Your task to perform on an android device: Play the last video I watched on Youtube Image 0: 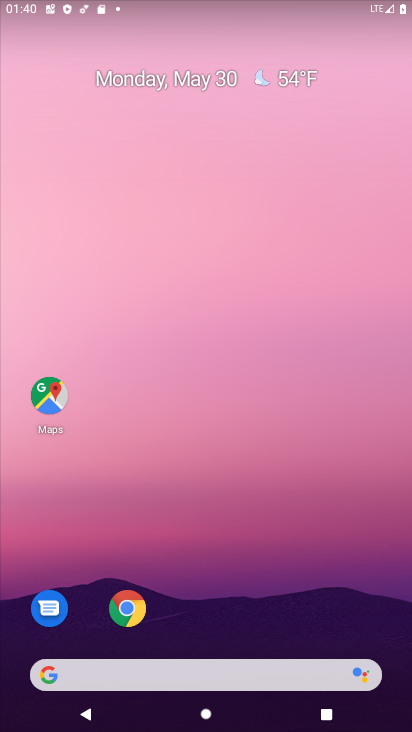
Step 0: drag from (226, 589) to (217, 256)
Your task to perform on an android device: Play the last video I watched on Youtube Image 1: 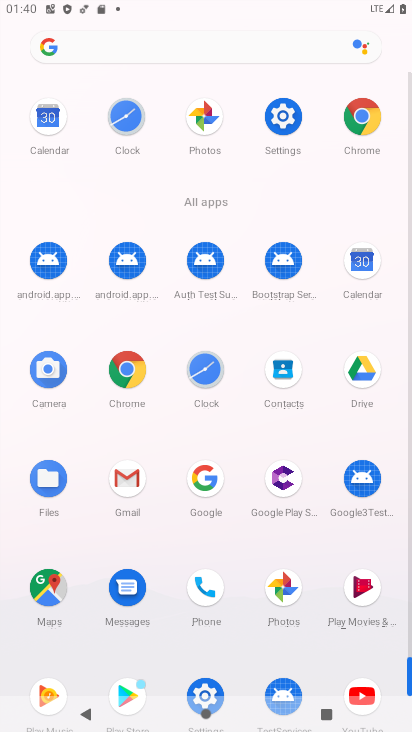
Step 1: click (366, 683)
Your task to perform on an android device: Play the last video I watched on Youtube Image 2: 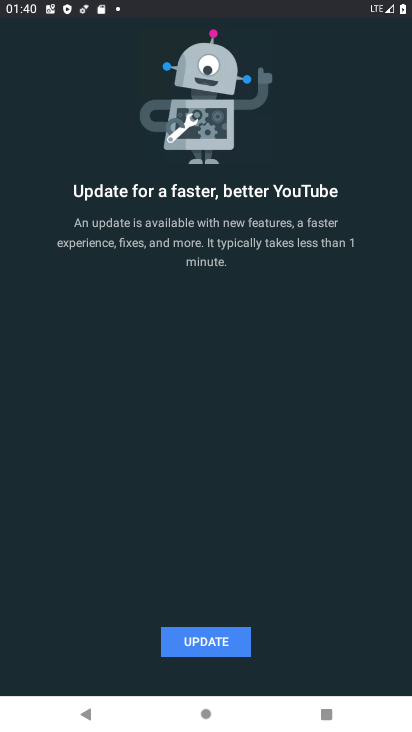
Step 2: task complete